Your task to perform on an android device: Open the Play Movies app and select the watchlist tab. Image 0: 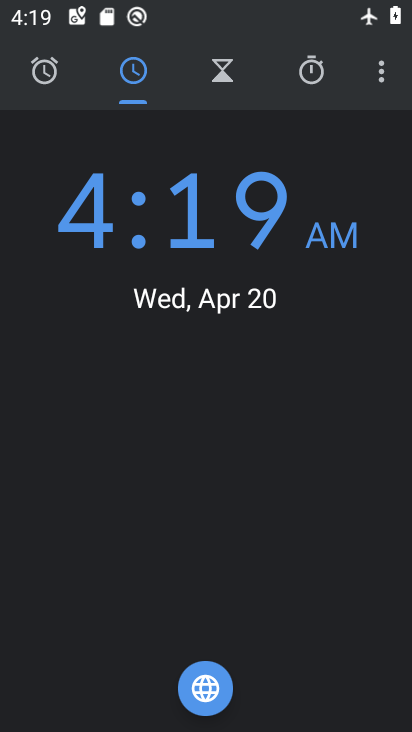
Step 0: press home button
Your task to perform on an android device: Open the Play Movies app and select the watchlist tab. Image 1: 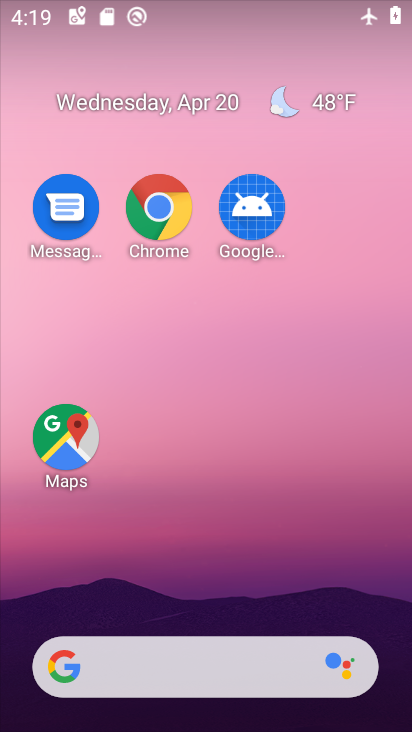
Step 1: drag from (277, 598) to (344, 37)
Your task to perform on an android device: Open the Play Movies app and select the watchlist tab. Image 2: 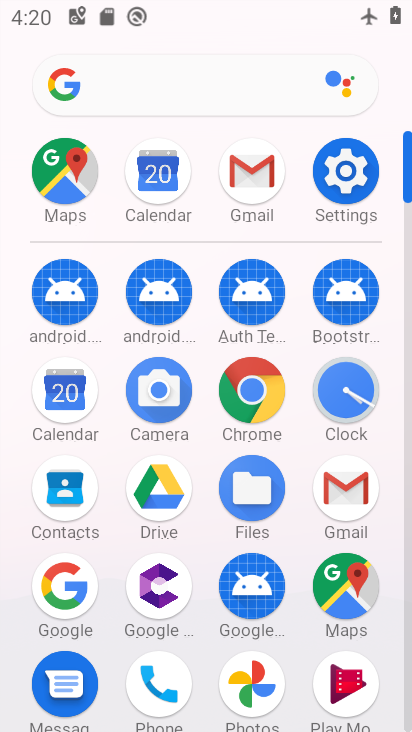
Step 2: drag from (291, 558) to (321, 244)
Your task to perform on an android device: Open the Play Movies app and select the watchlist tab. Image 3: 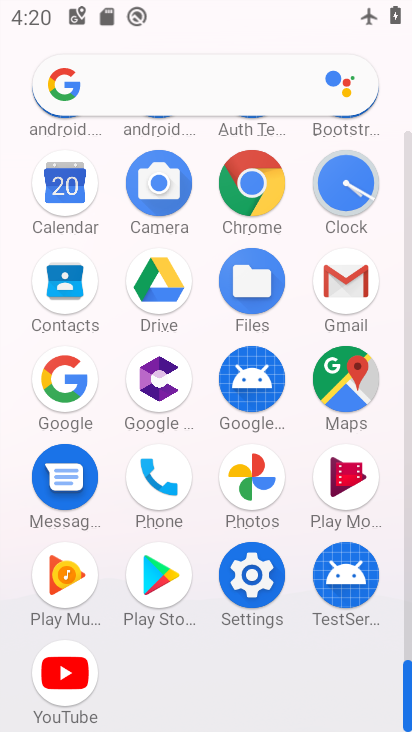
Step 3: click (351, 492)
Your task to perform on an android device: Open the Play Movies app and select the watchlist tab. Image 4: 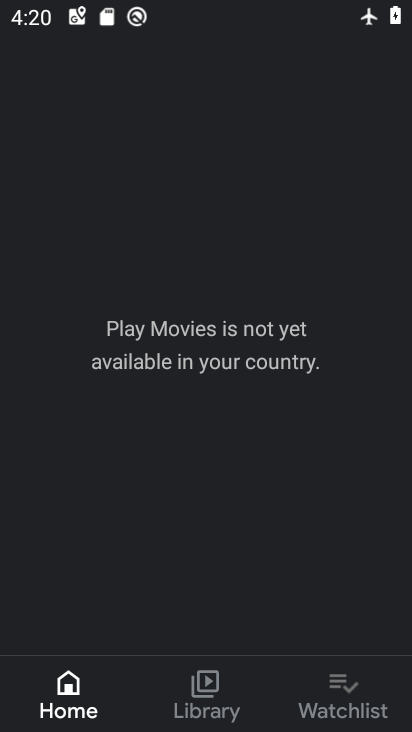
Step 4: click (351, 703)
Your task to perform on an android device: Open the Play Movies app and select the watchlist tab. Image 5: 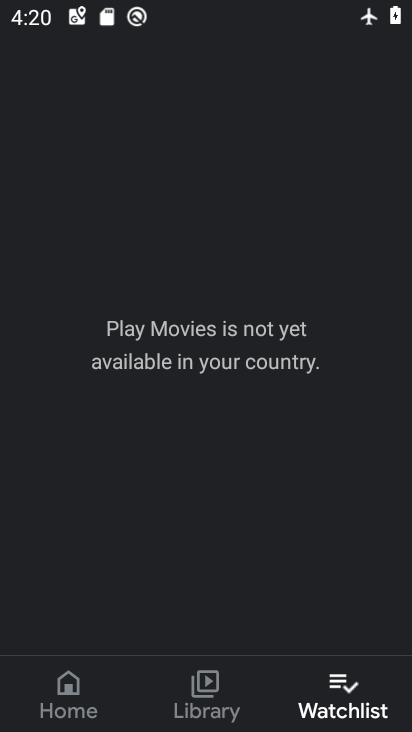
Step 5: task complete